Your task to perform on an android device: toggle notification dots Image 0: 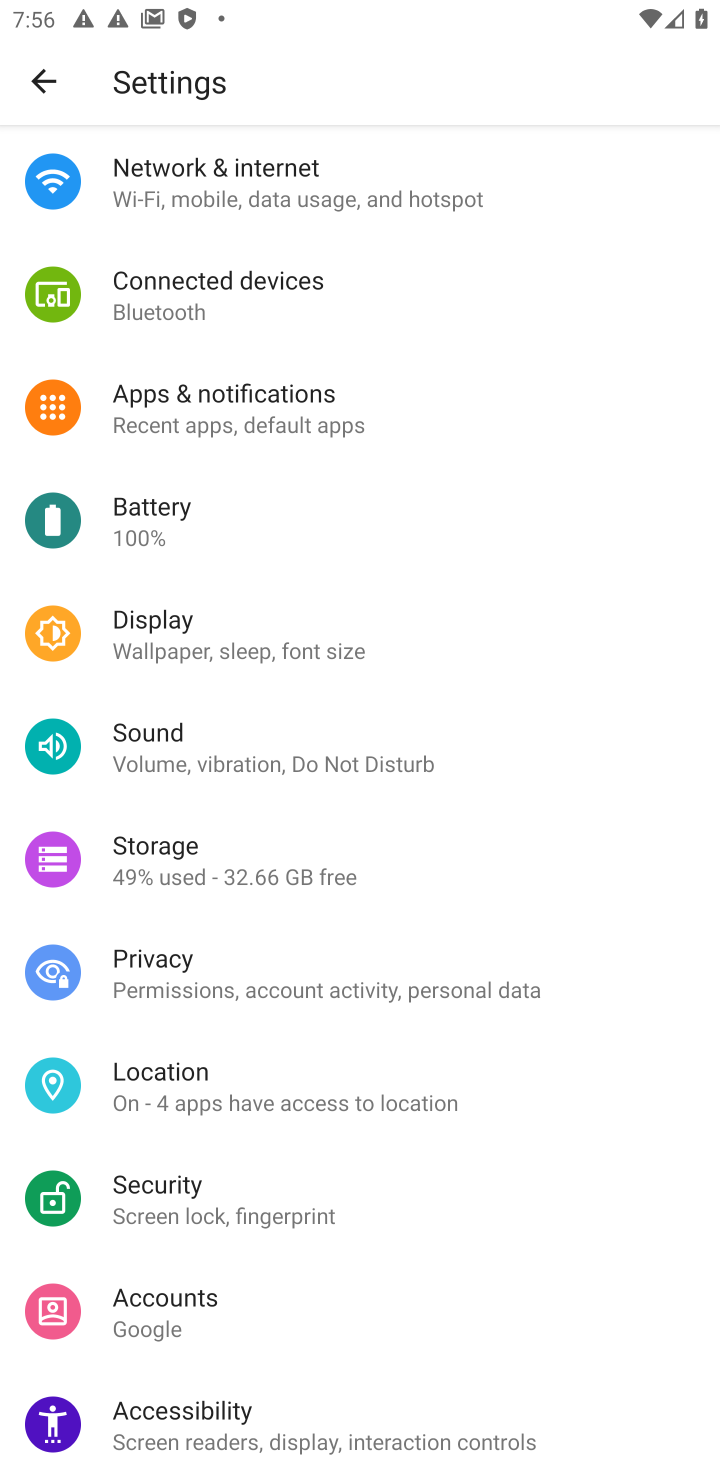
Step 0: click (194, 417)
Your task to perform on an android device: toggle notification dots Image 1: 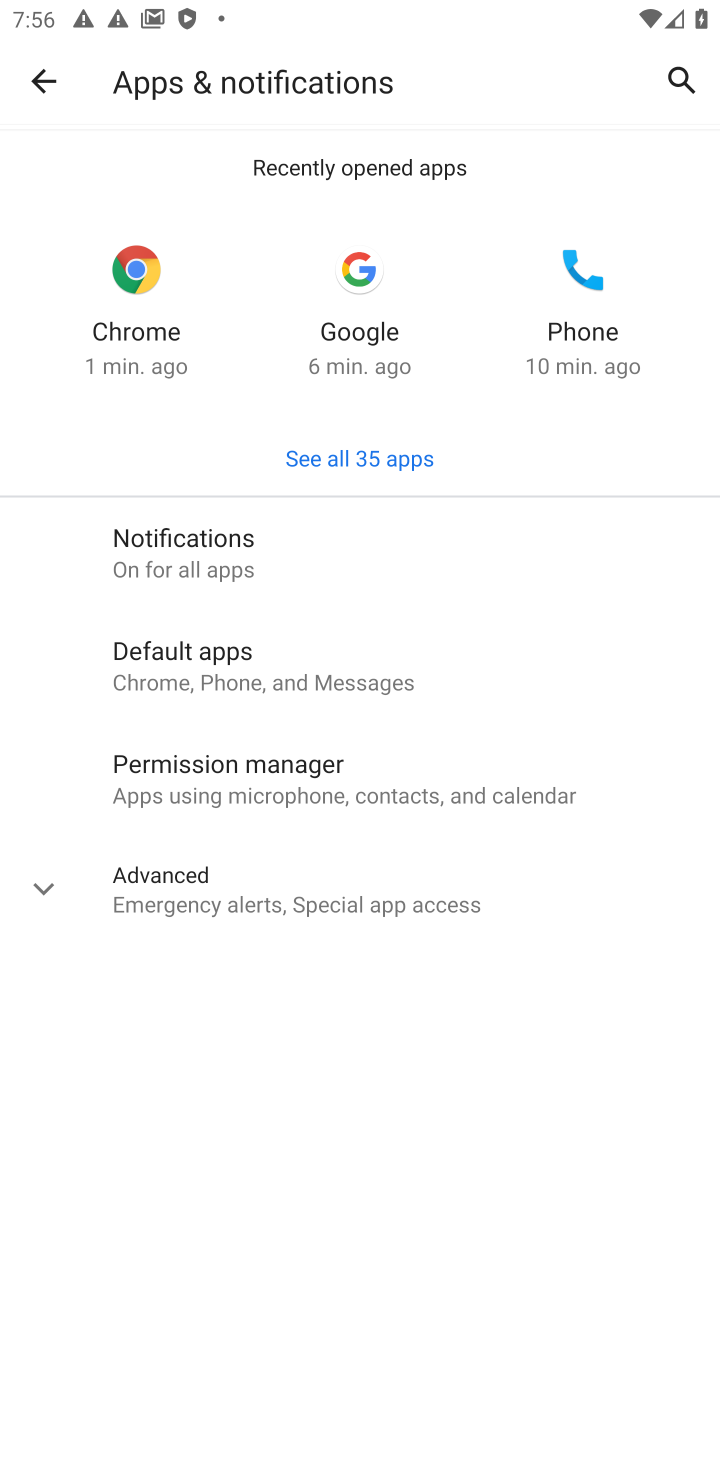
Step 1: click (215, 565)
Your task to perform on an android device: toggle notification dots Image 2: 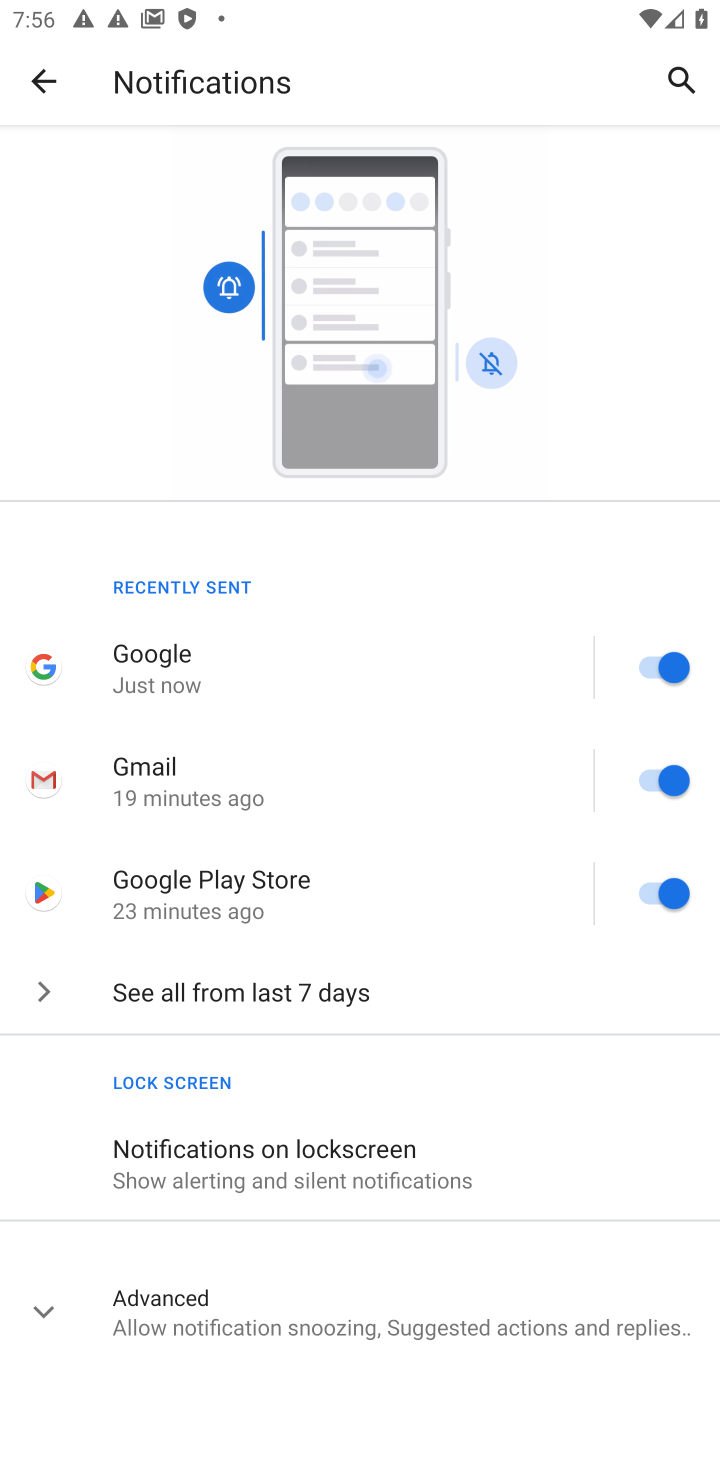
Step 2: click (192, 1175)
Your task to perform on an android device: toggle notification dots Image 3: 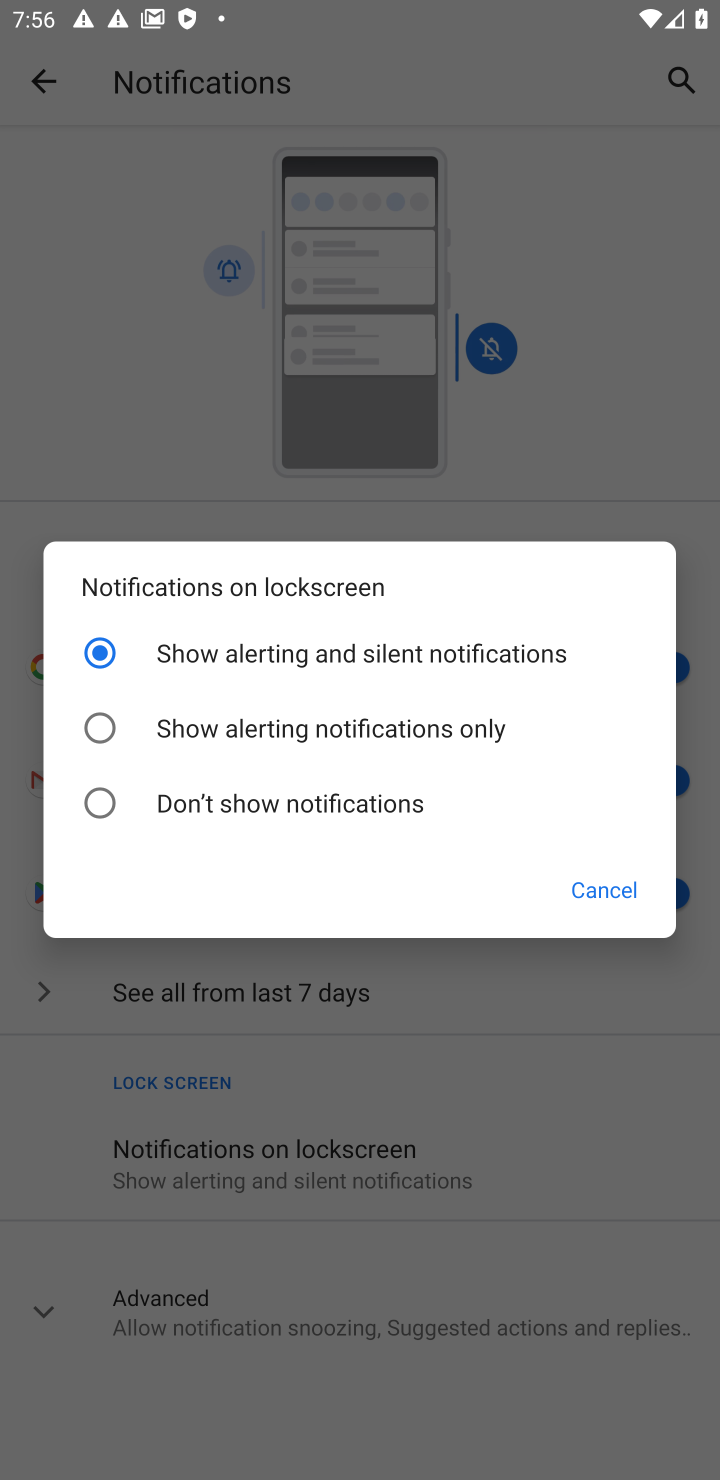
Step 3: click (591, 892)
Your task to perform on an android device: toggle notification dots Image 4: 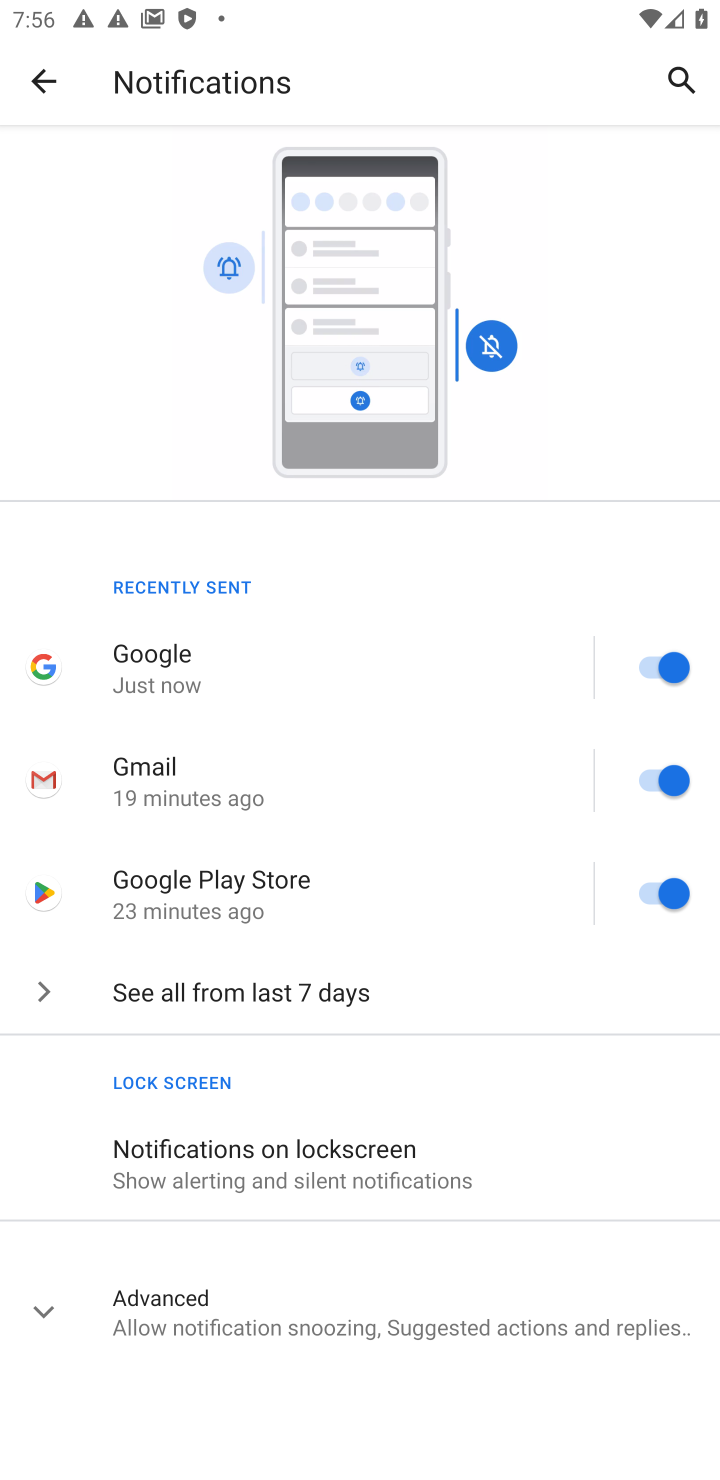
Step 4: click (168, 1328)
Your task to perform on an android device: toggle notification dots Image 5: 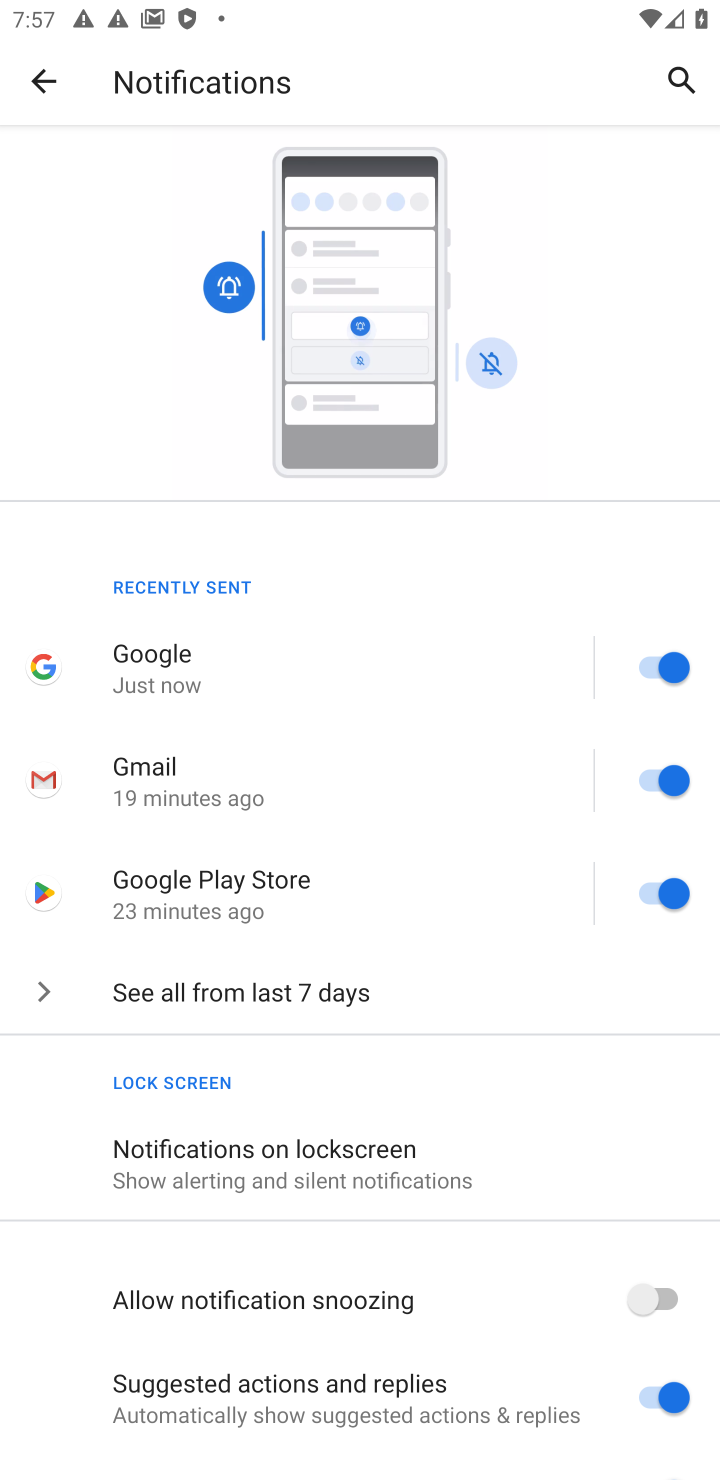
Step 5: drag from (200, 755) to (200, 645)
Your task to perform on an android device: toggle notification dots Image 6: 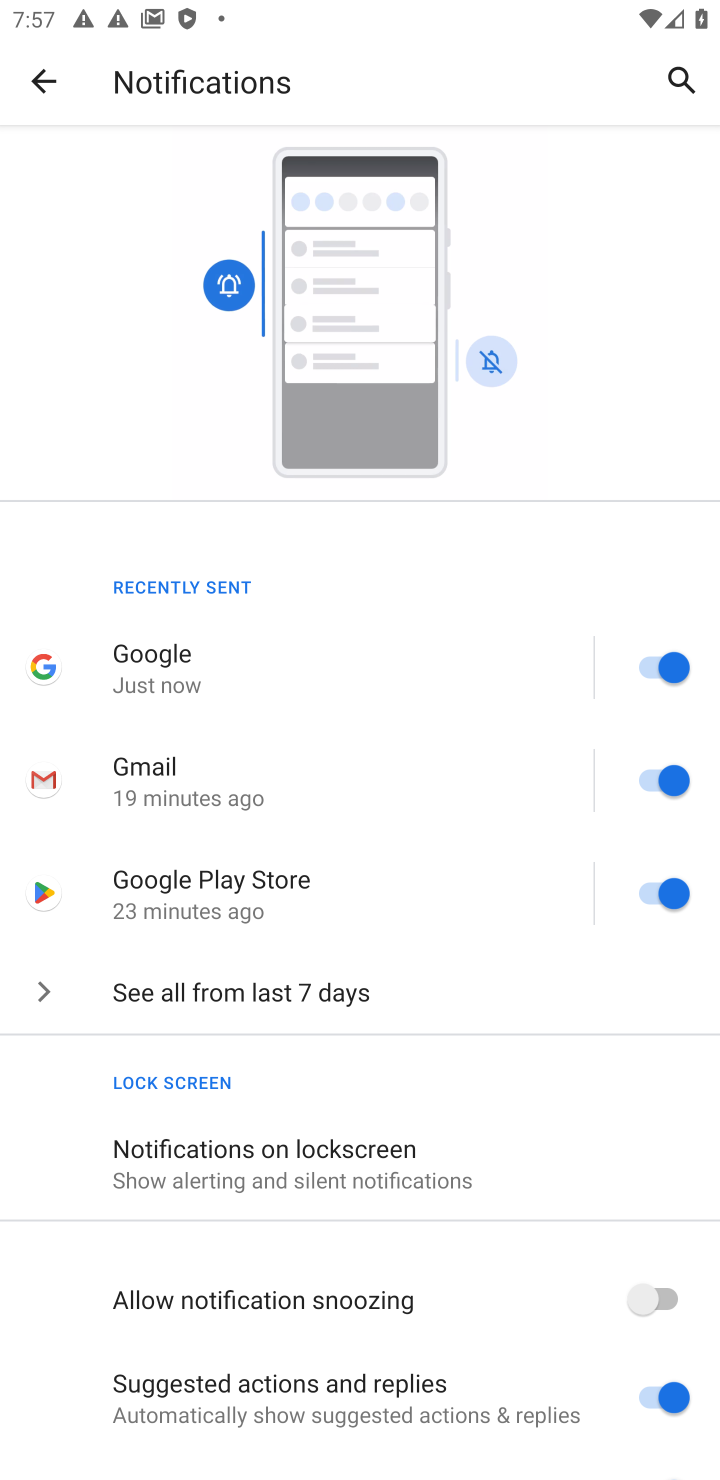
Step 6: drag from (401, 1078) to (491, 560)
Your task to perform on an android device: toggle notification dots Image 7: 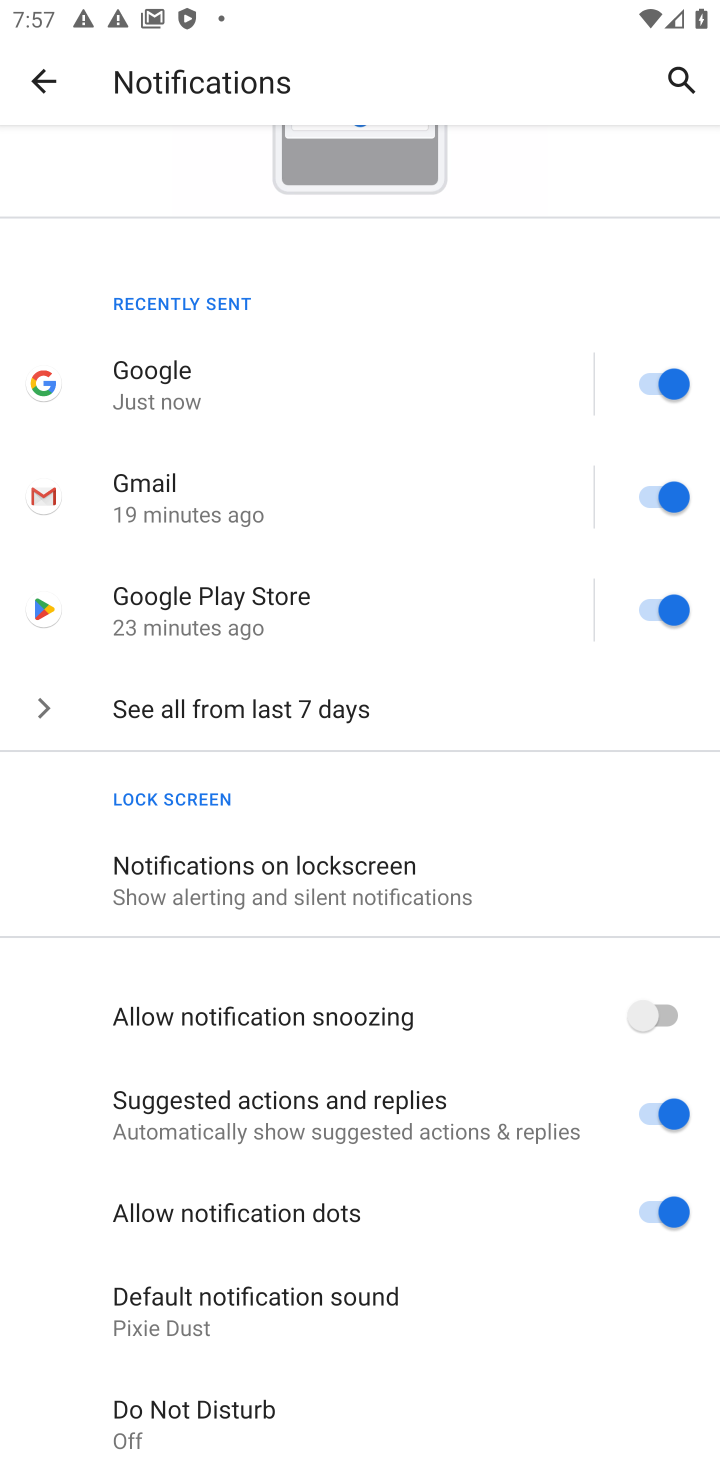
Step 7: click (648, 1205)
Your task to perform on an android device: toggle notification dots Image 8: 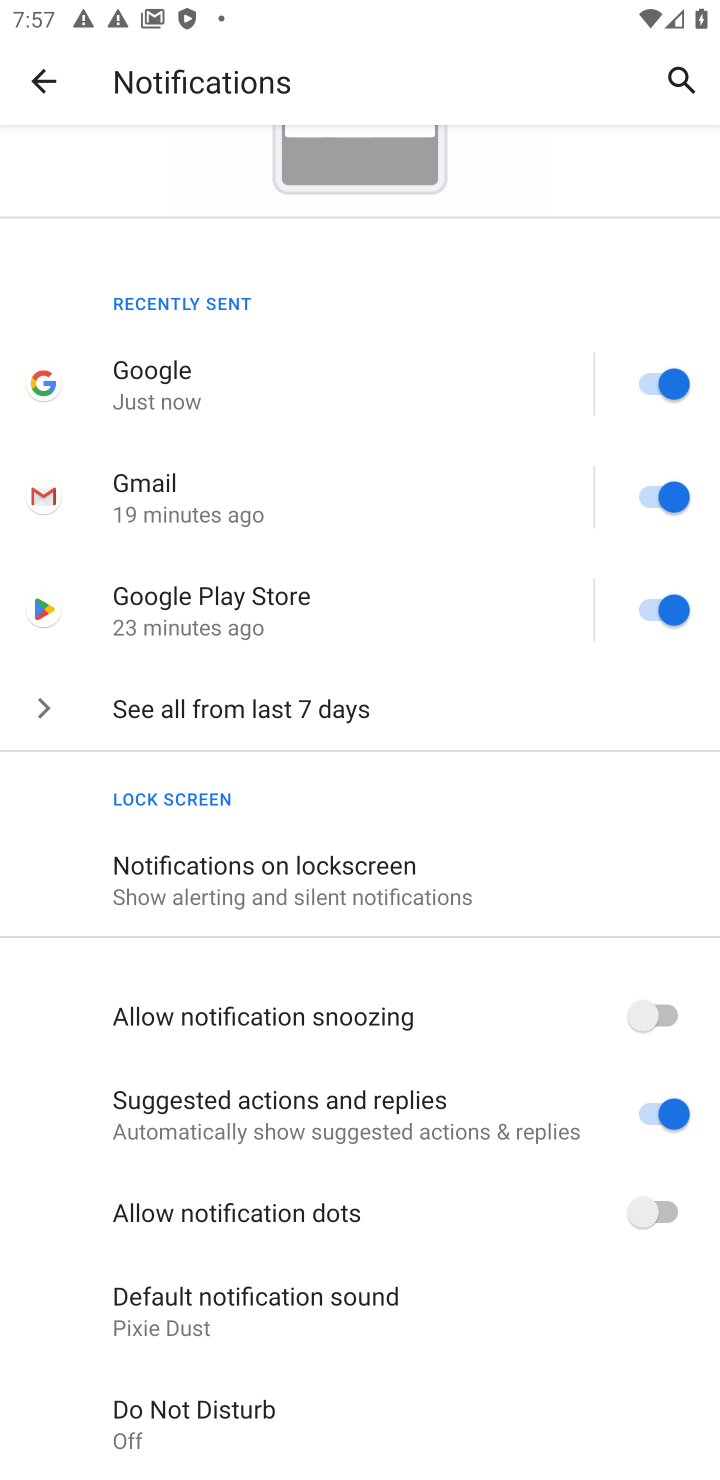
Step 8: task complete